Your task to perform on an android device: visit the assistant section in the google photos Image 0: 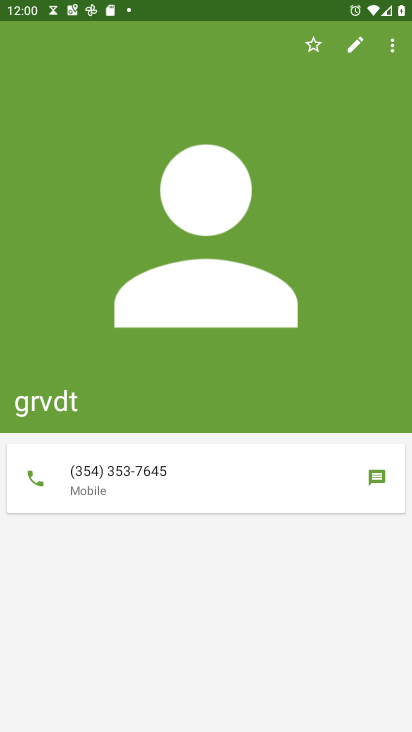
Step 0: press home button
Your task to perform on an android device: visit the assistant section in the google photos Image 1: 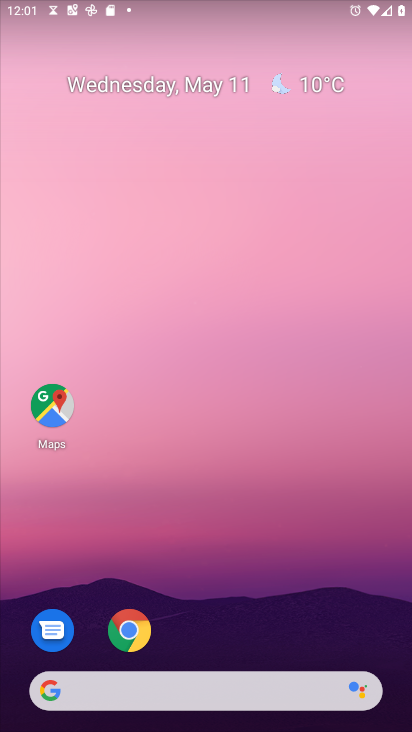
Step 1: drag from (237, 623) to (293, 51)
Your task to perform on an android device: visit the assistant section in the google photos Image 2: 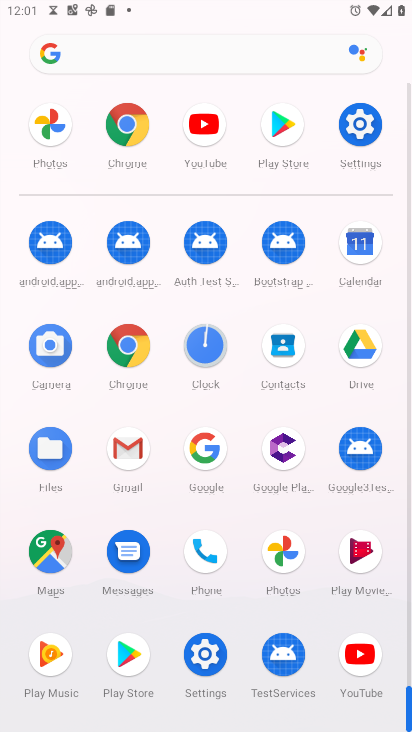
Step 2: click (285, 546)
Your task to perform on an android device: visit the assistant section in the google photos Image 3: 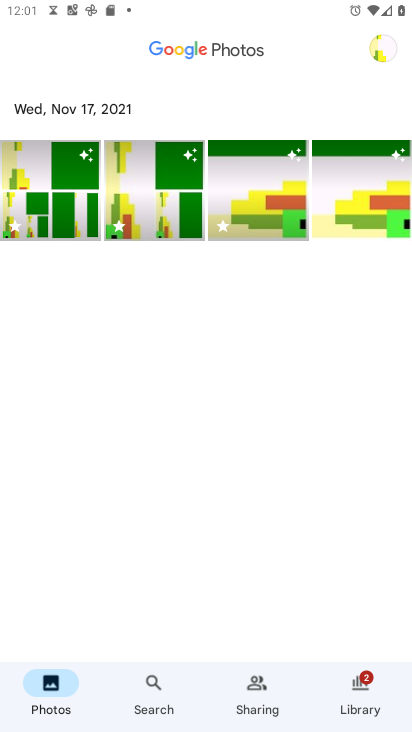
Step 3: click (146, 687)
Your task to perform on an android device: visit the assistant section in the google photos Image 4: 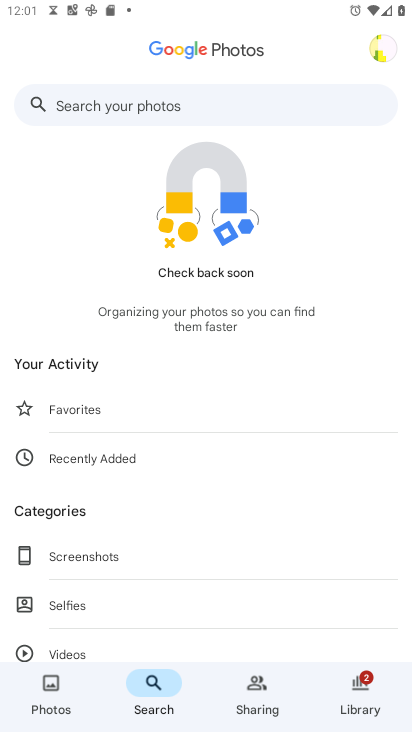
Step 4: click (180, 109)
Your task to perform on an android device: visit the assistant section in the google photos Image 5: 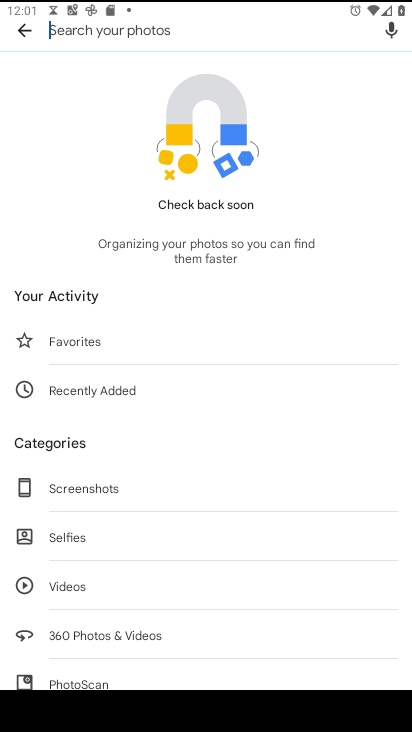
Step 5: type "assistant"
Your task to perform on an android device: visit the assistant section in the google photos Image 6: 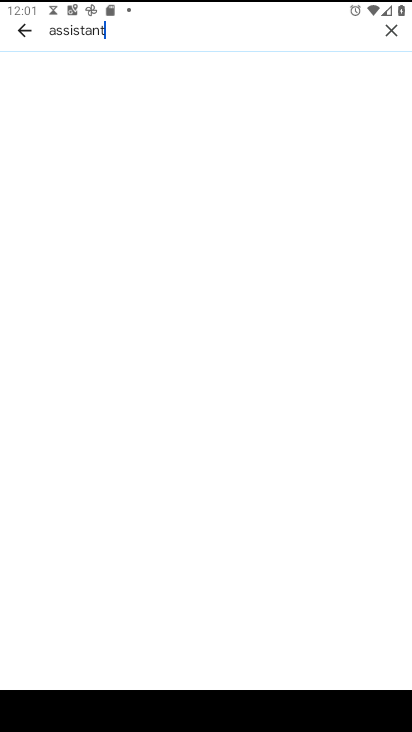
Step 6: task complete